Your task to perform on an android device: turn on showing notifications on the lock screen Image 0: 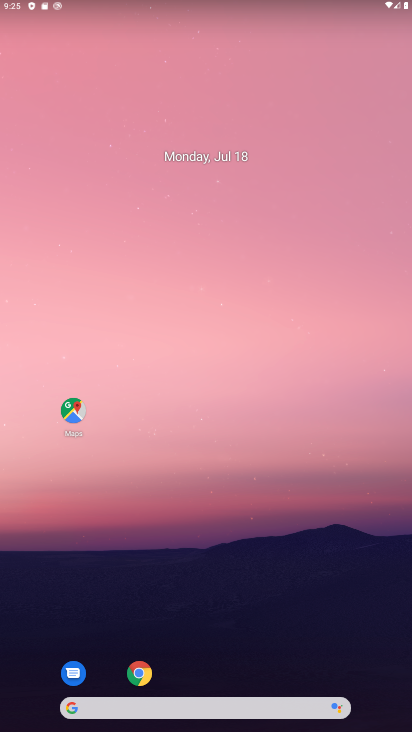
Step 0: drag from (248, 681) to (275, 146)
Your task to perform on an android device: turn on showing notifications on the lock screen Image 1: 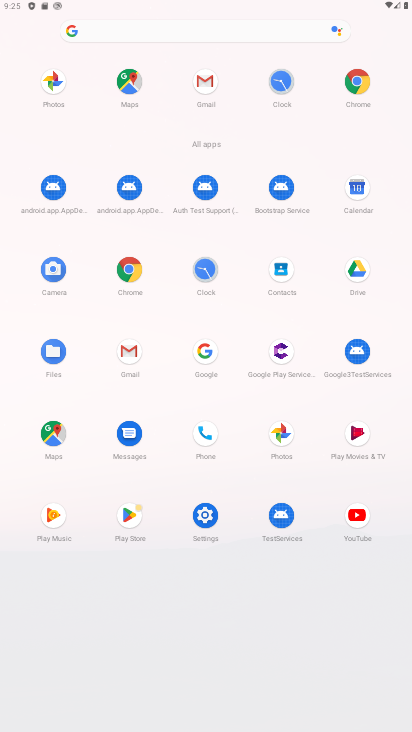
Step 1: click (204, 514)
Your task to perform on an android device: turn on showing notifications on the lock screen Image 2: 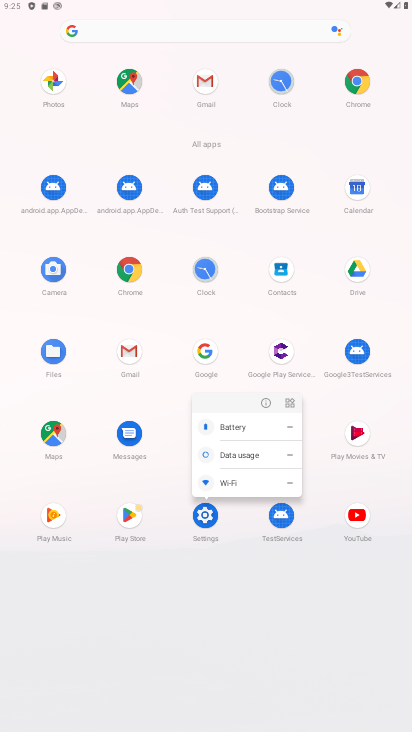
Step 2: click (205, 509)
Your task to perform on an android device: turn on showing notifications on the lock screen Image 3: 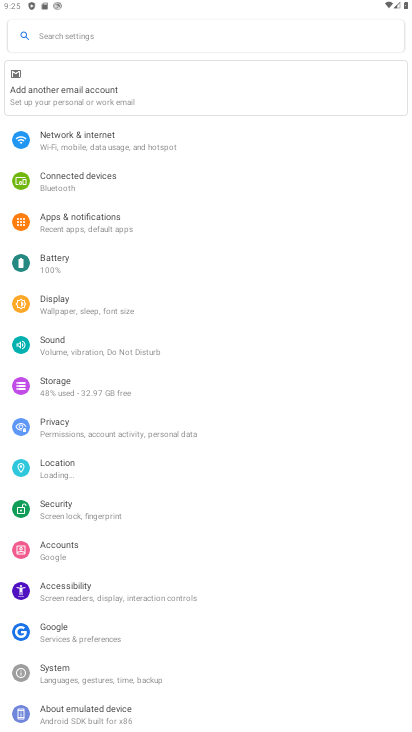
Step 3: click (126, 230)
Your task to perform on an android device: turn on showing notifications on the lock screen Image 4: 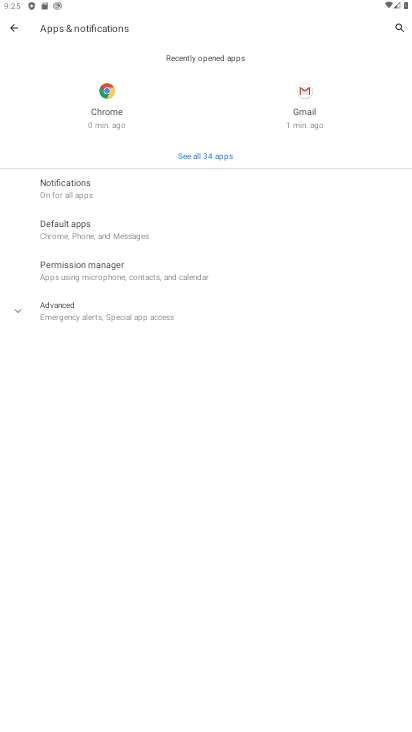
Step 4: click (111, 200)
Your task to perform on an android device: turn on showing notifications on the lock screen Image 5: 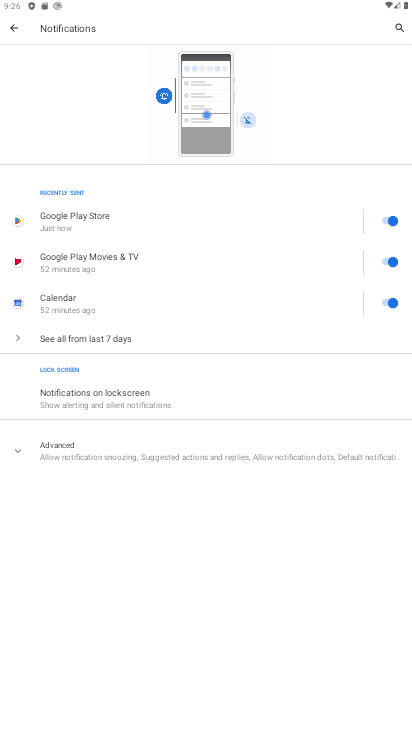
Step 5: click (165, 401)
Your task to perform on an android device: turn on showing notifications on the lock screen Image 6: 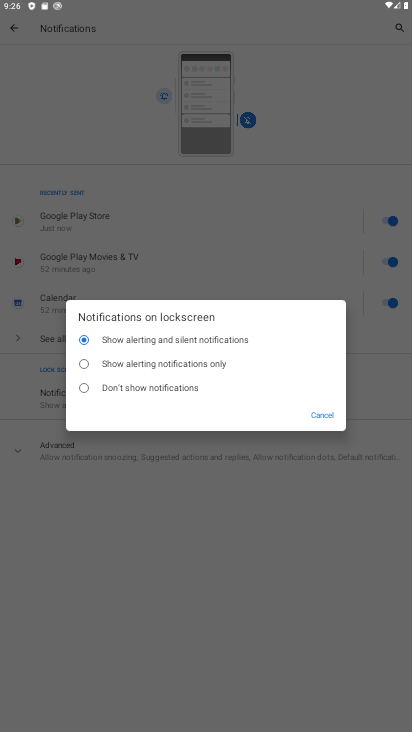
Step 6: task complete